Your task to perform on an android device: Open Reddit.com Image 0: 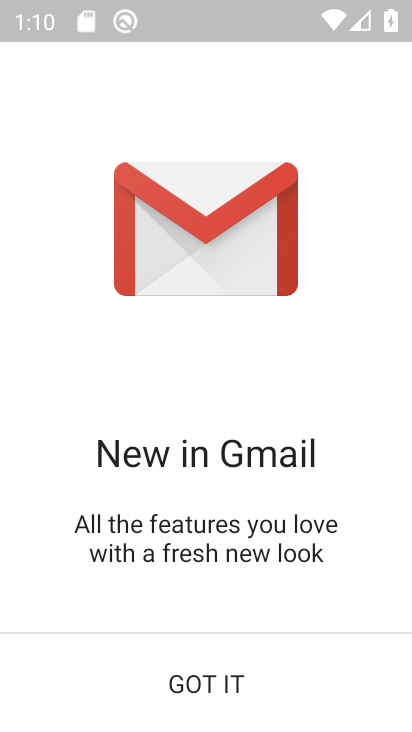
Step 0: press home button
Your task to perform on an android device: Open Reddit.com Image 1: 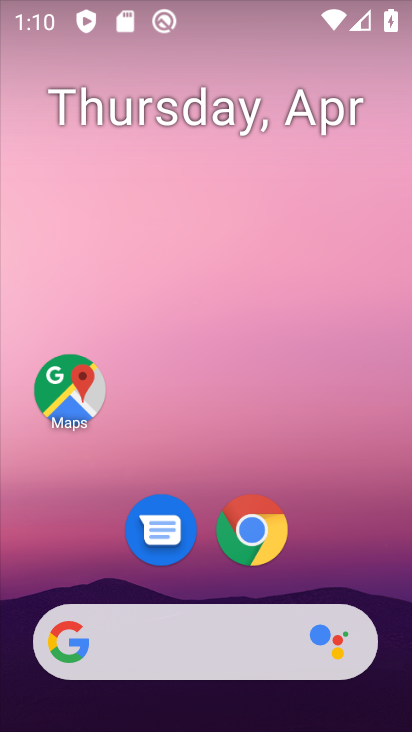
Step 1: click (242, 545)
Your task to perform on an android device: Open Reddit.com Image 2: 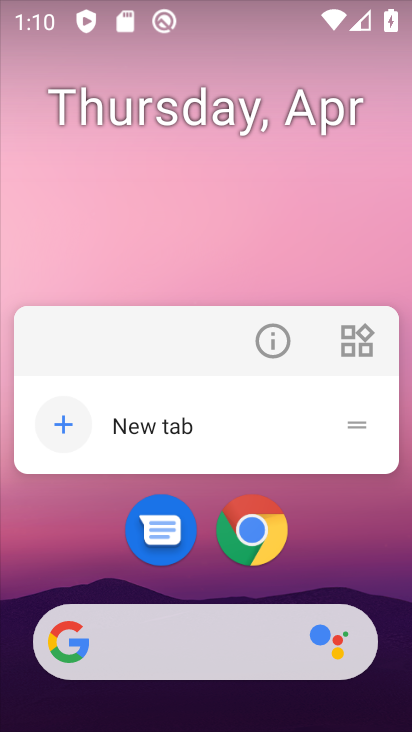
Step 2: click (249, 539)
Your task to perform on an android device: Open Reddit.com Image 3: 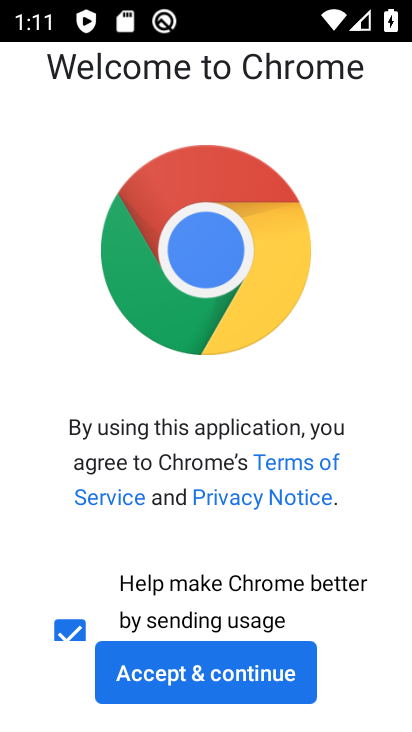
Step 3: click (248, 605)
Your task to perform on an android device: Open Reddit.com Image 4: 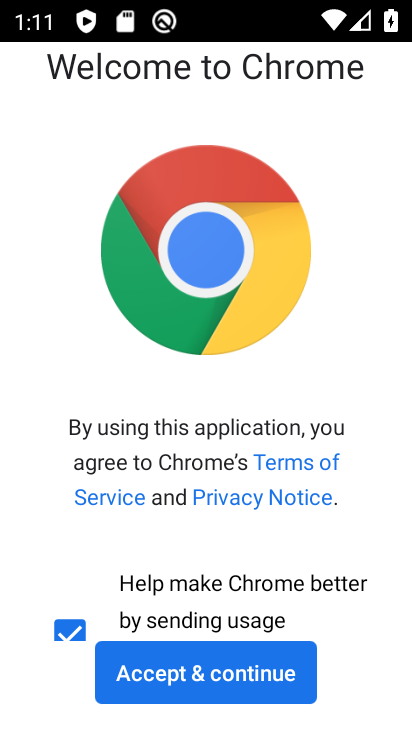
Step 4: click (237, 688)
Your task to perform on an android device: Open Reddit.com Image 5: 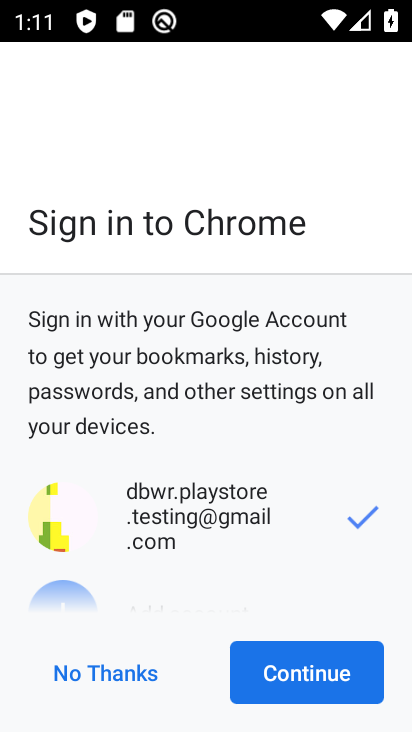
Step 5: click (253, 680)
Your task to perform on an android device: Open Reddit.com Image 6: 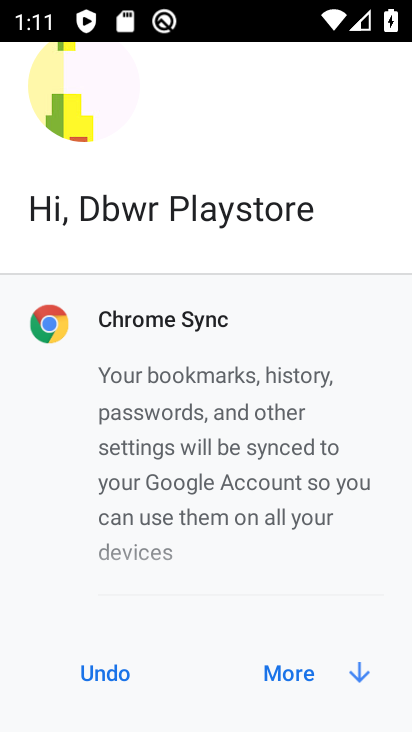
Step 6: click (303, 670)
Your task to perform on an android device: Open Reddit.com Image 7: 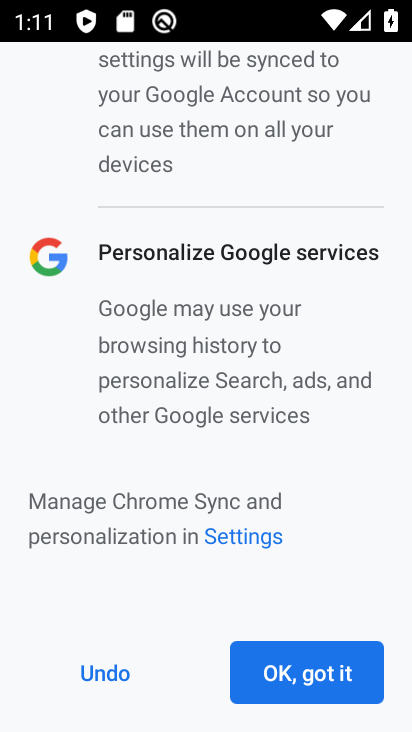
Step 7: click (302, 671)
Your task to perform on an android device: Open Reddit.com Image 8: 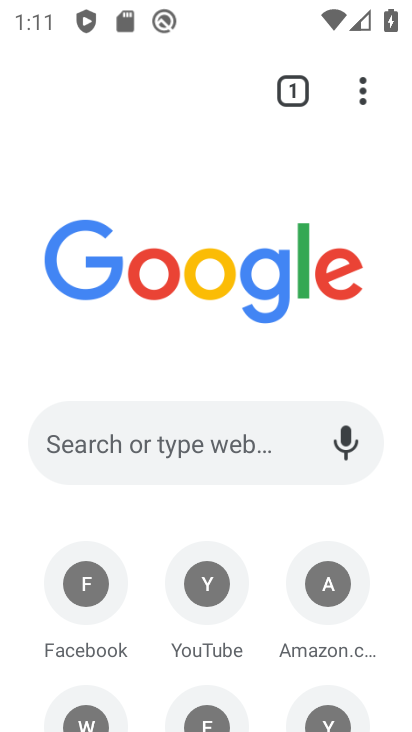
Step 8: click (172, 449)
Your task to perform on an android device: Open Reddit.com Image 9: 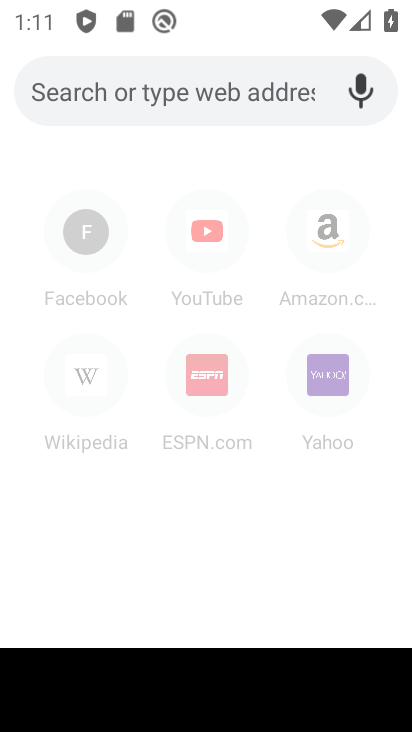
Step 9: type "reddit"
Your task to perform on an android device: Open Reddit.com Image 10: 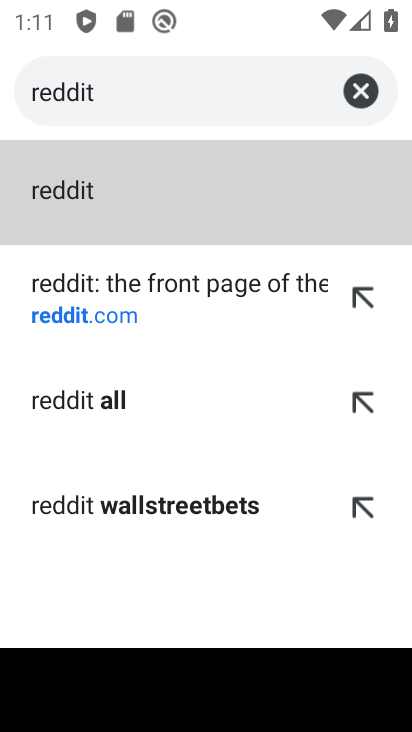
Step 10: click (190, 202)
Your task to perform on an android device: Open Reddit.com Image 11: 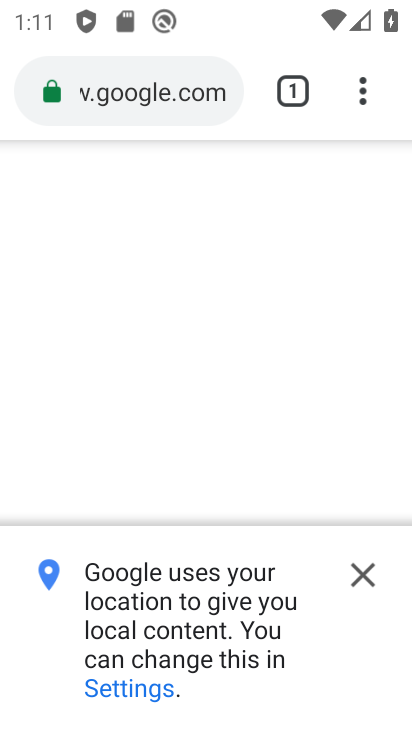
Step 11: click (371, 567)
Your task to perform on an android device: Open Reddit.com Image 12: 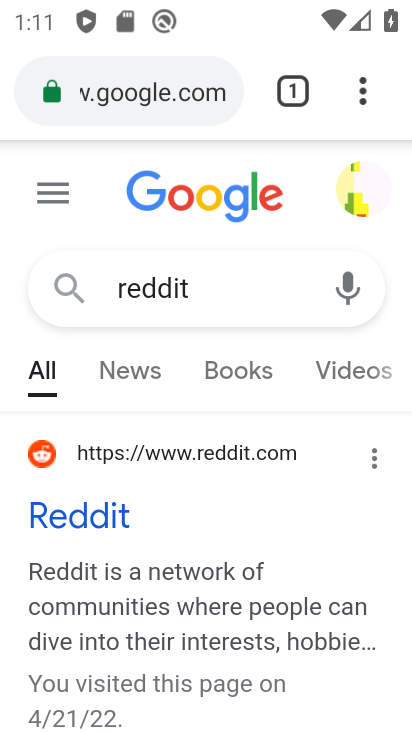
Step 12: click (125, 518)
Your task to perform on an android device: Open Reddit.com Image 13: 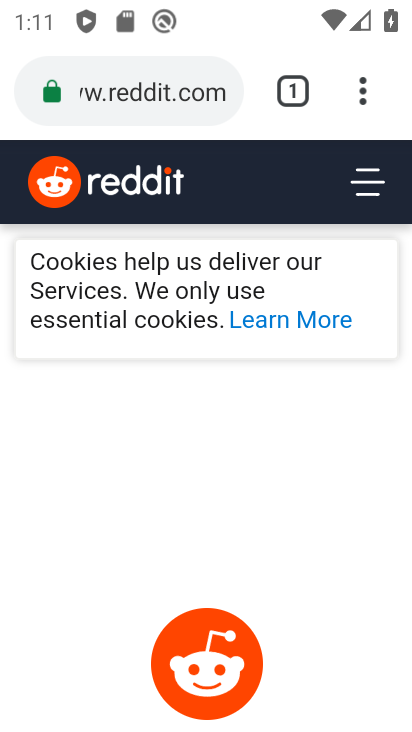
Step 13: task complete